Your task to perform on an android device: turn off airplane mode Image 0: 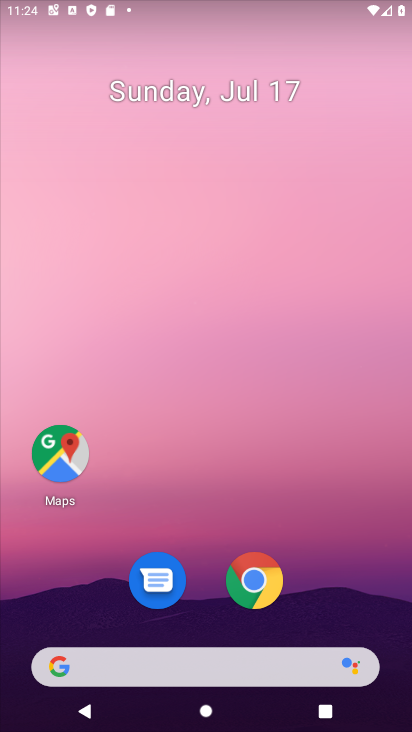
Step 0: drag from (198, 501) to (201, 355)
Your task to perform on an android device: turn off airplane mode Image 1: 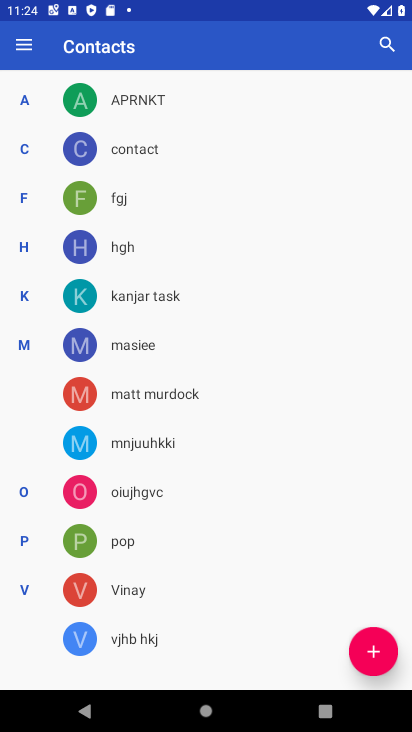
Step 1: press home button
Your task to perform on an android device: turn off airplane mode Image 2: 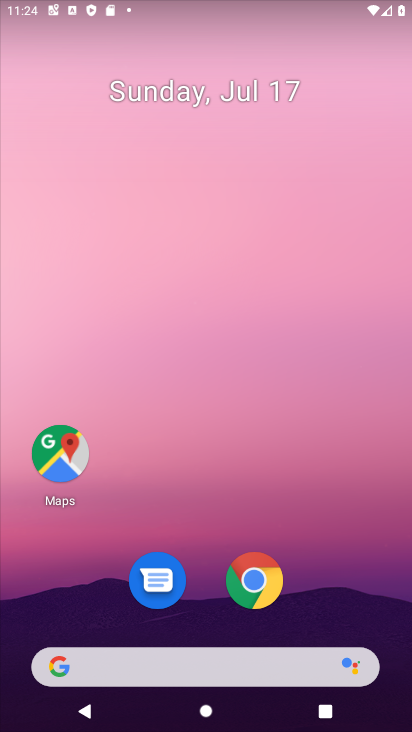
Step 2: drag from (263, 683) to (275, 267)
Your task to perform on an android device: turn off airplane mode Image 3: 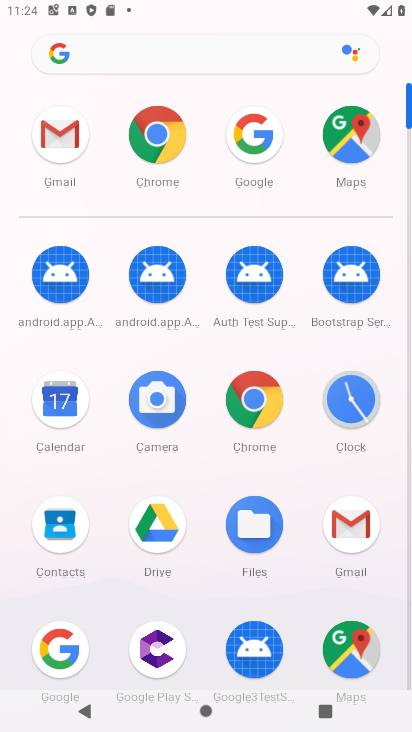
Step 3: drag from (241, 495) to (265, 220)
Your task to perform on an android device: turn off airplane mode Image 4: 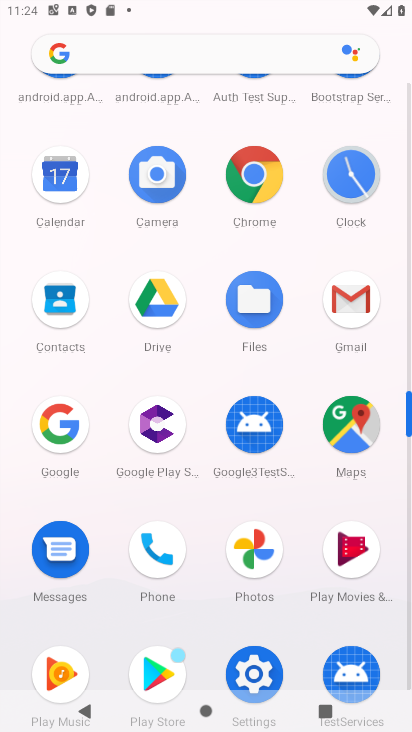
Step 4: drag from (297, 415) to (318, 275)
Your task to perform on an android device: turn off airplane mode Image 5: 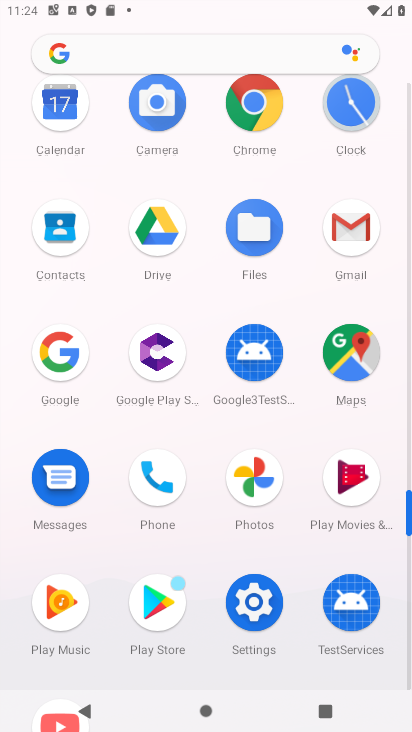
Step 5: click (264, 612)
Your task to perform on an android device: turn off airplane mode Image 6: 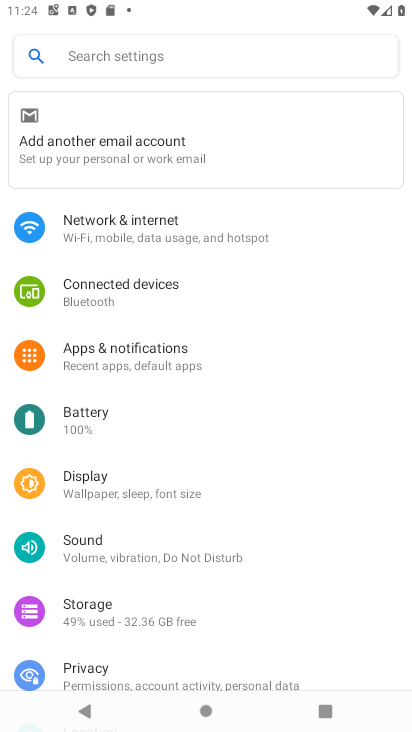
Step 6: click (156, 238)
Your task to perform on an android device: turn off airplane mode Image 7: 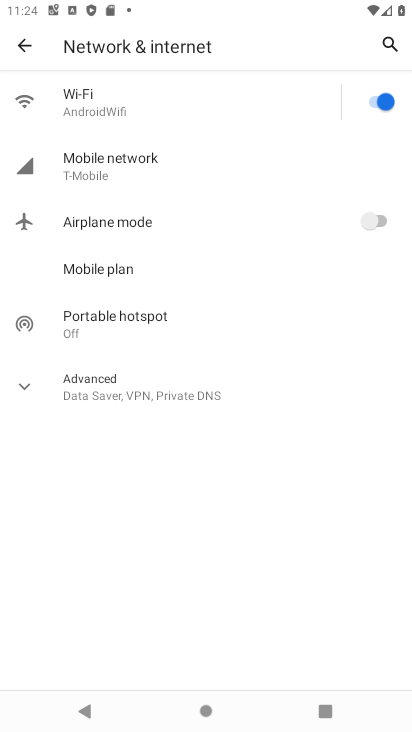
Step 7: task complete